Your task to perform on an android device: Look up the best rated drill on Lowes. Image 0: 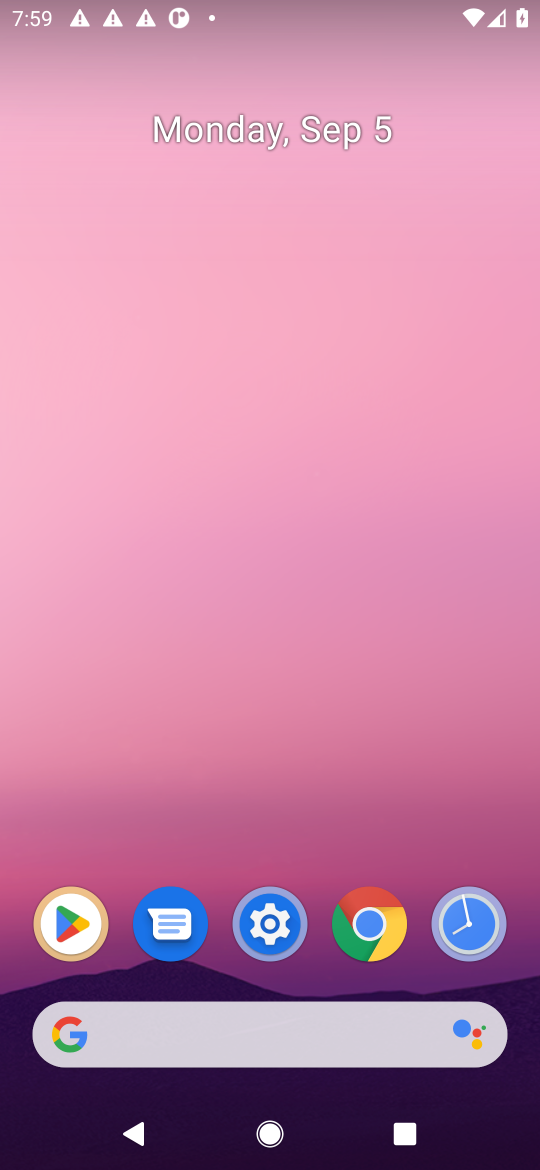
Step 0: press home button
Your task to perform on an android device: Look up the best rated drill on Lowes. Image 1: 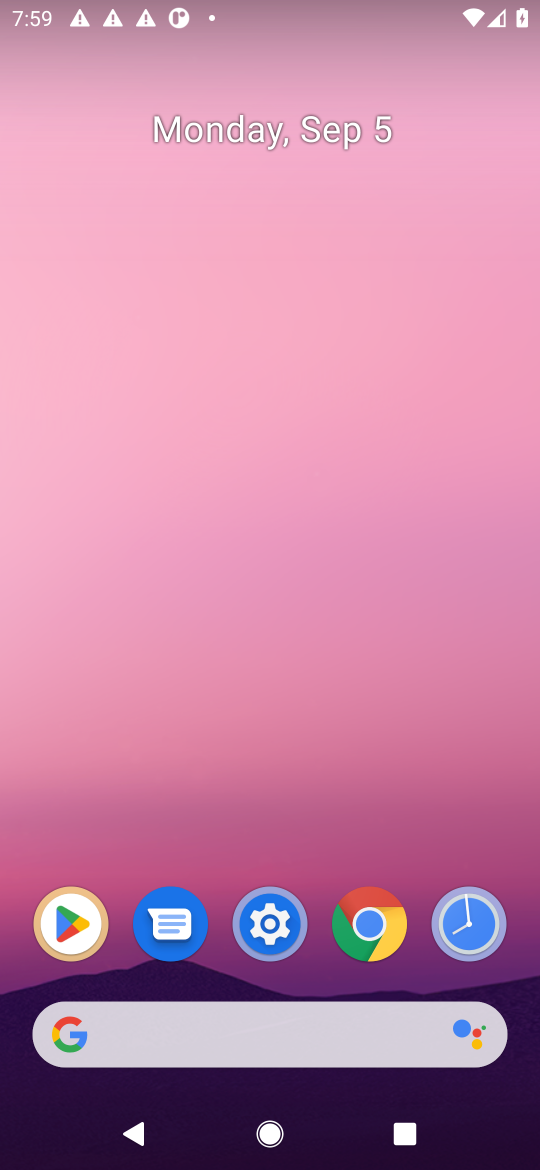
Step 1: click (350, 1038)
Your task to perform on an android device: Look up the best rated drill on Lowes. Image 2: 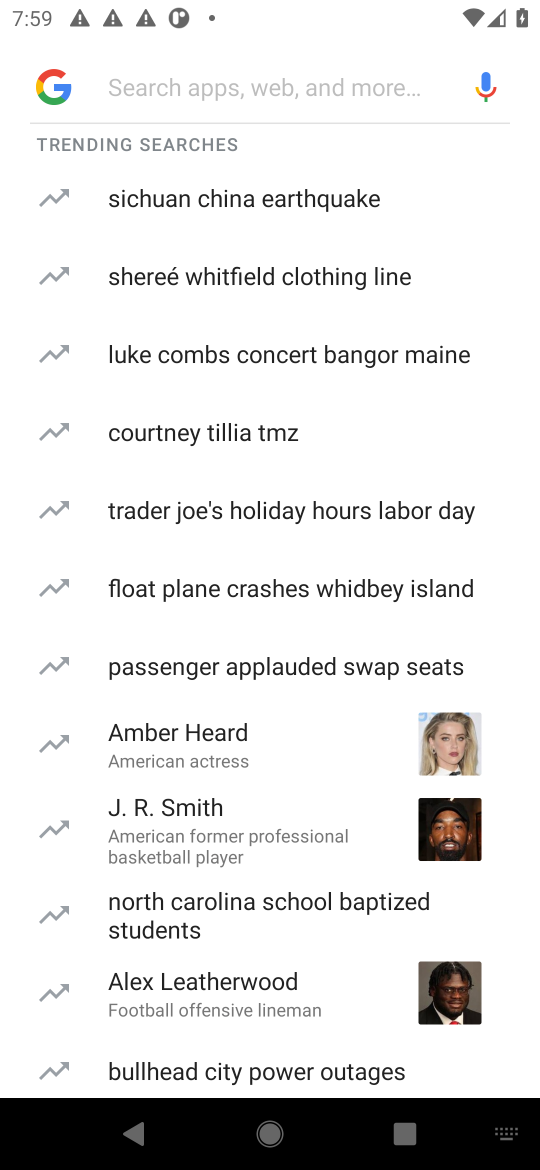
Step 2: type "lowes"
Your task to perform on an android device: Look up the best rated drill on Lowes. Image 3: 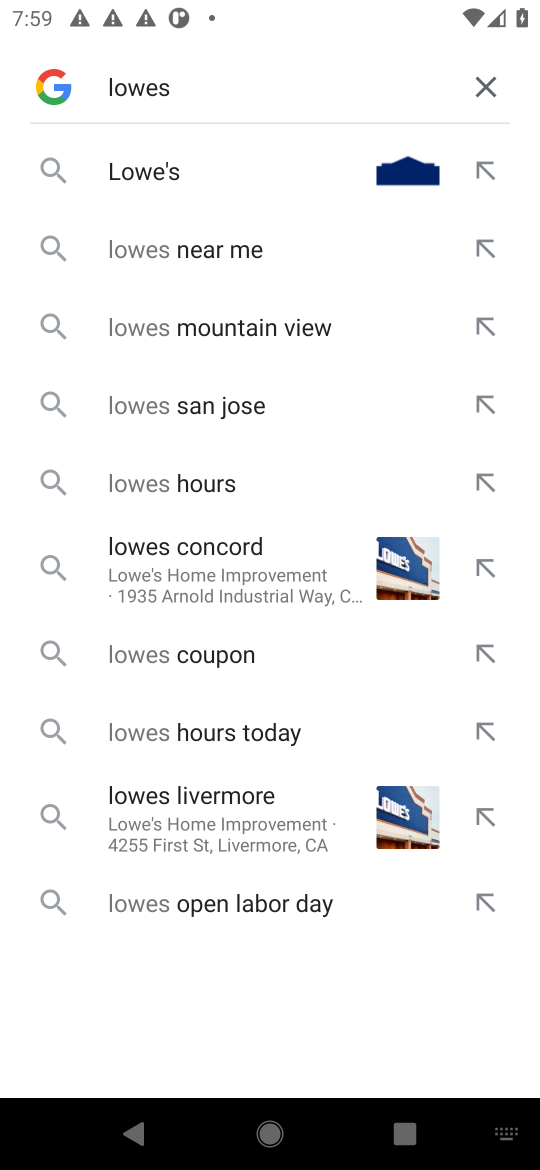
Step 3: press enter
Your task to perform on an android device: Look up the best rated drill on Lowes. Image 4: 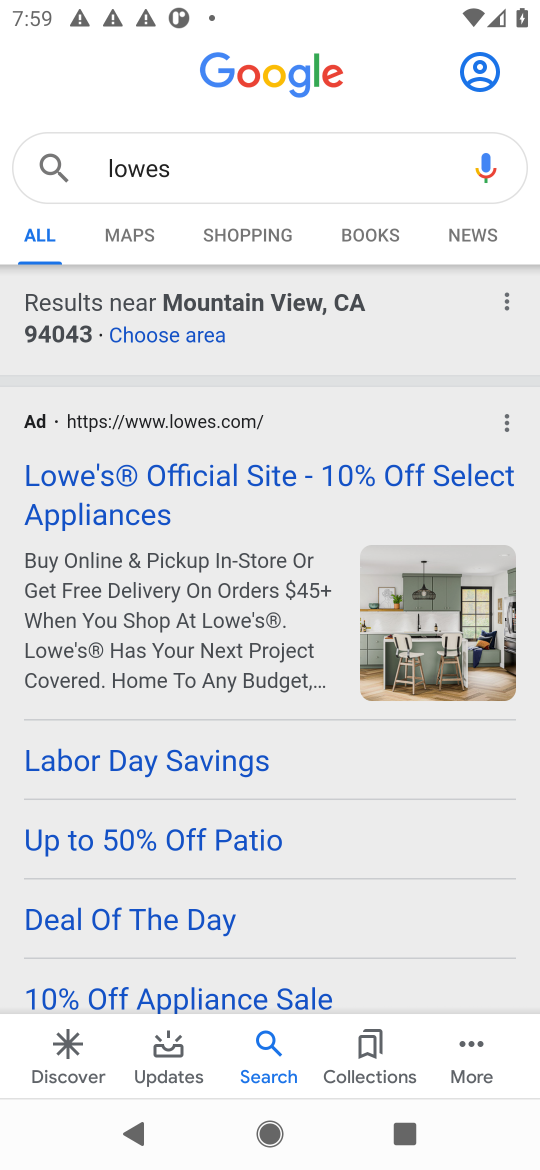
Step 4: click (128, 477)
Your task to perform on an android device: Look up the best rated drill on Lowes. Image 5: 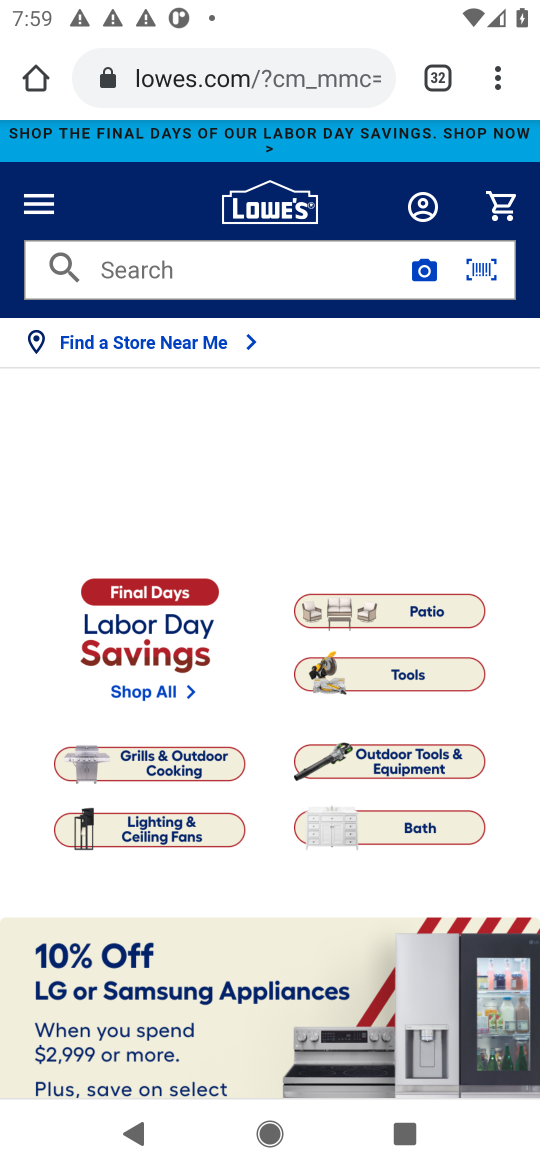
Step 5: click (155, 273)
Your task to perform on an android device: Look up the best rated drill on Lowes. Image 6: 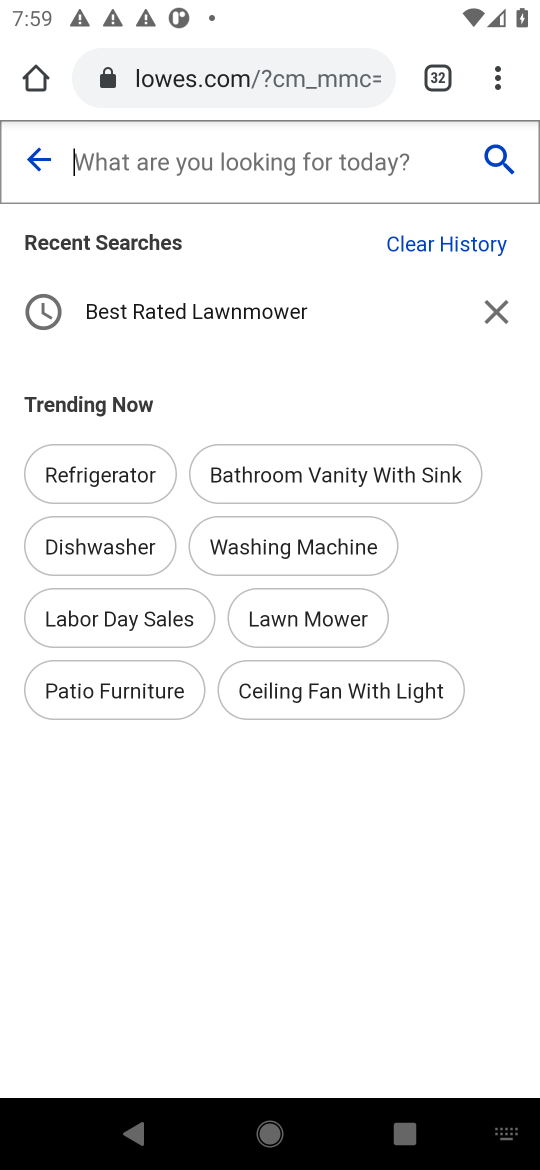
Step 6: press enter
Your task to perform on an android device: Look up the best rated drill on Lowes. Image 7: 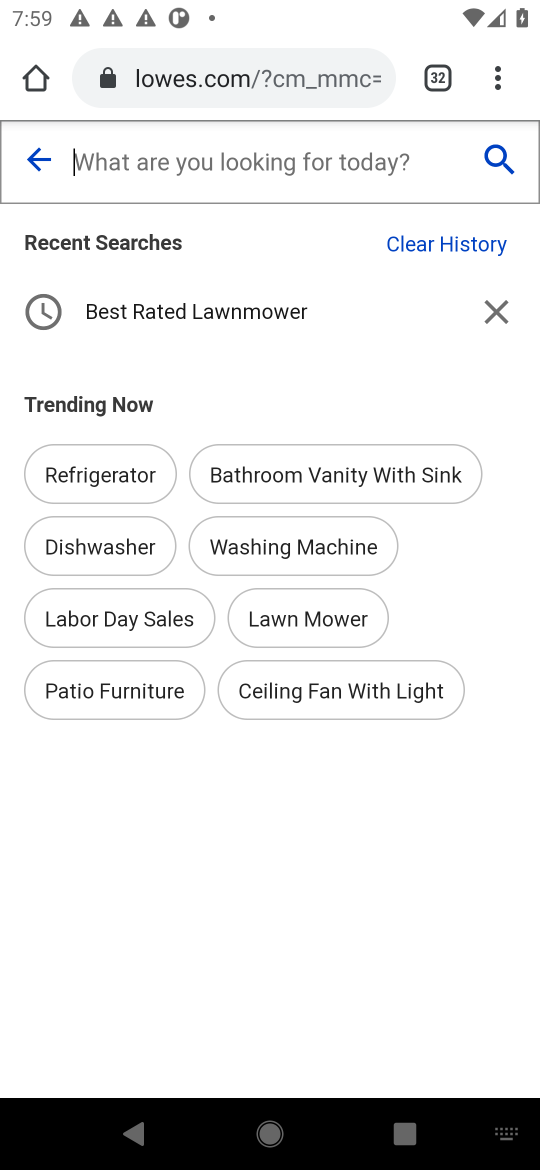
Step 7: type "best rated drill"
Your task to perform on an android device: Look up the best rated drill on Lowes. Image 8: 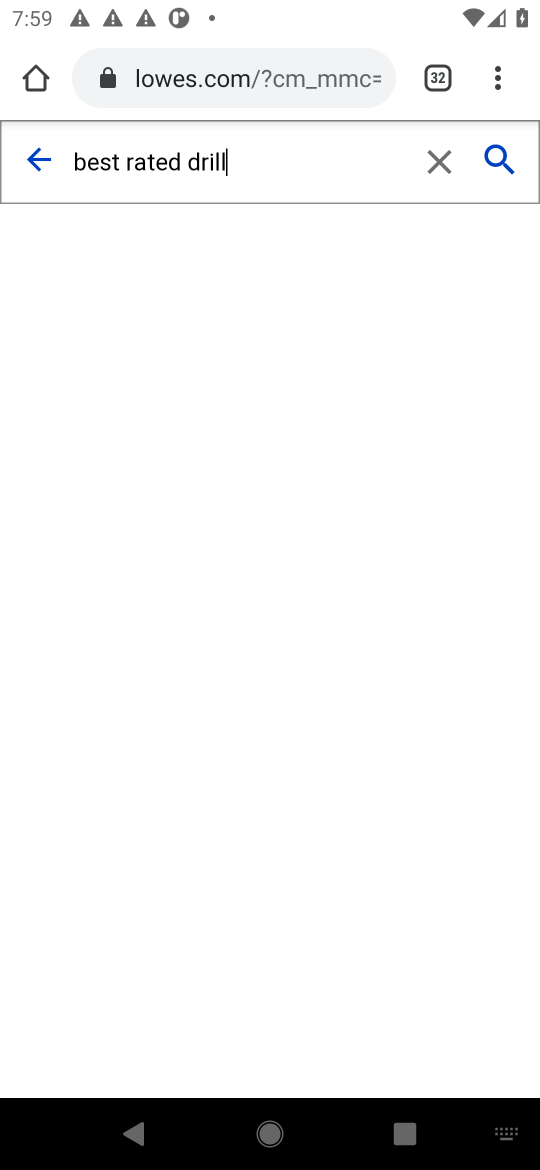
Step 8: click (502, 148)
Your task to perform on an android device: Look up the best rated drill on Lowes. Image 9: 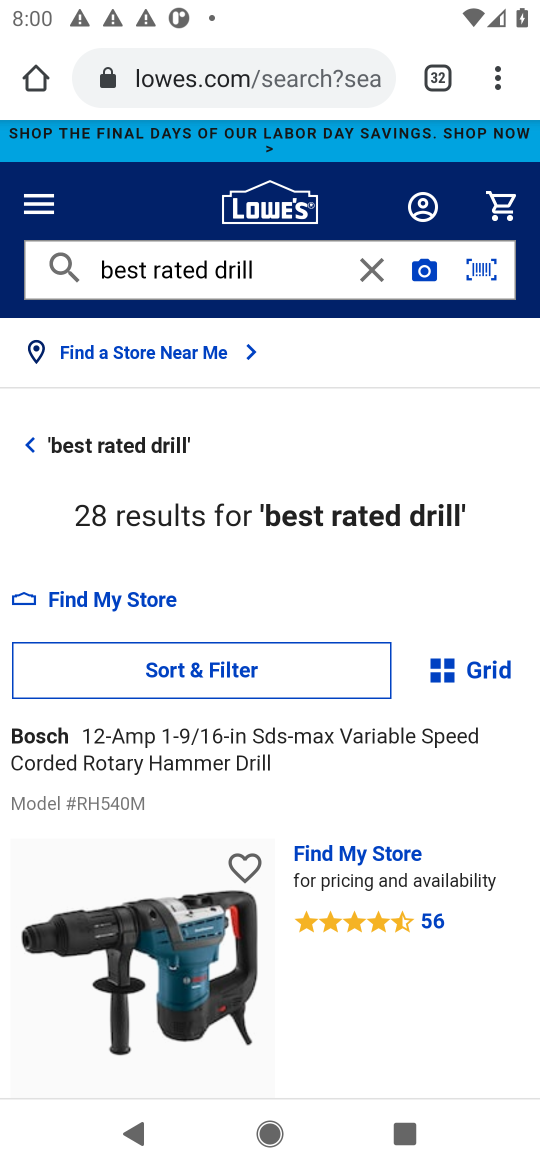
Step 9: task complete